Your task to perform on an android device: What is the news today? Image 0: 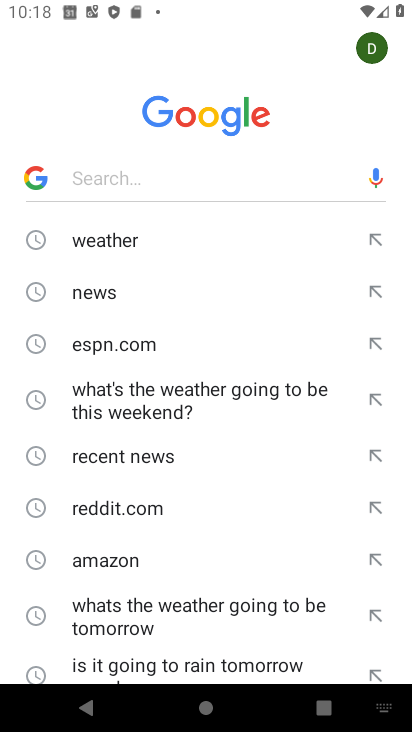
Step 0: click (131, 290)
Your task to perform on an android device: What is the news today? Image 1: 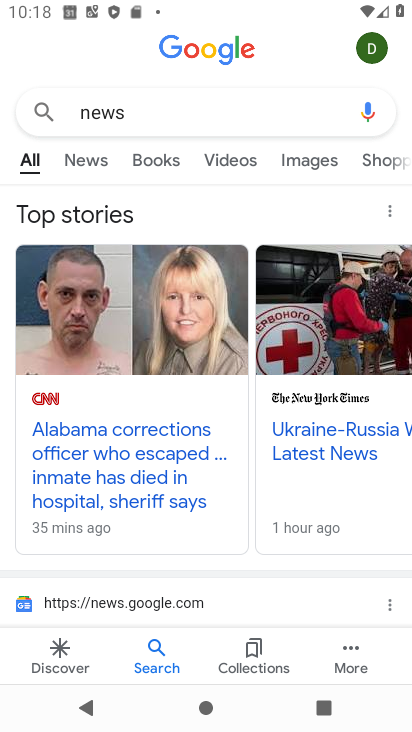
Step 1: task complete